Your task to perform on an android device: toggle show notifications on the lock screen Image 0: 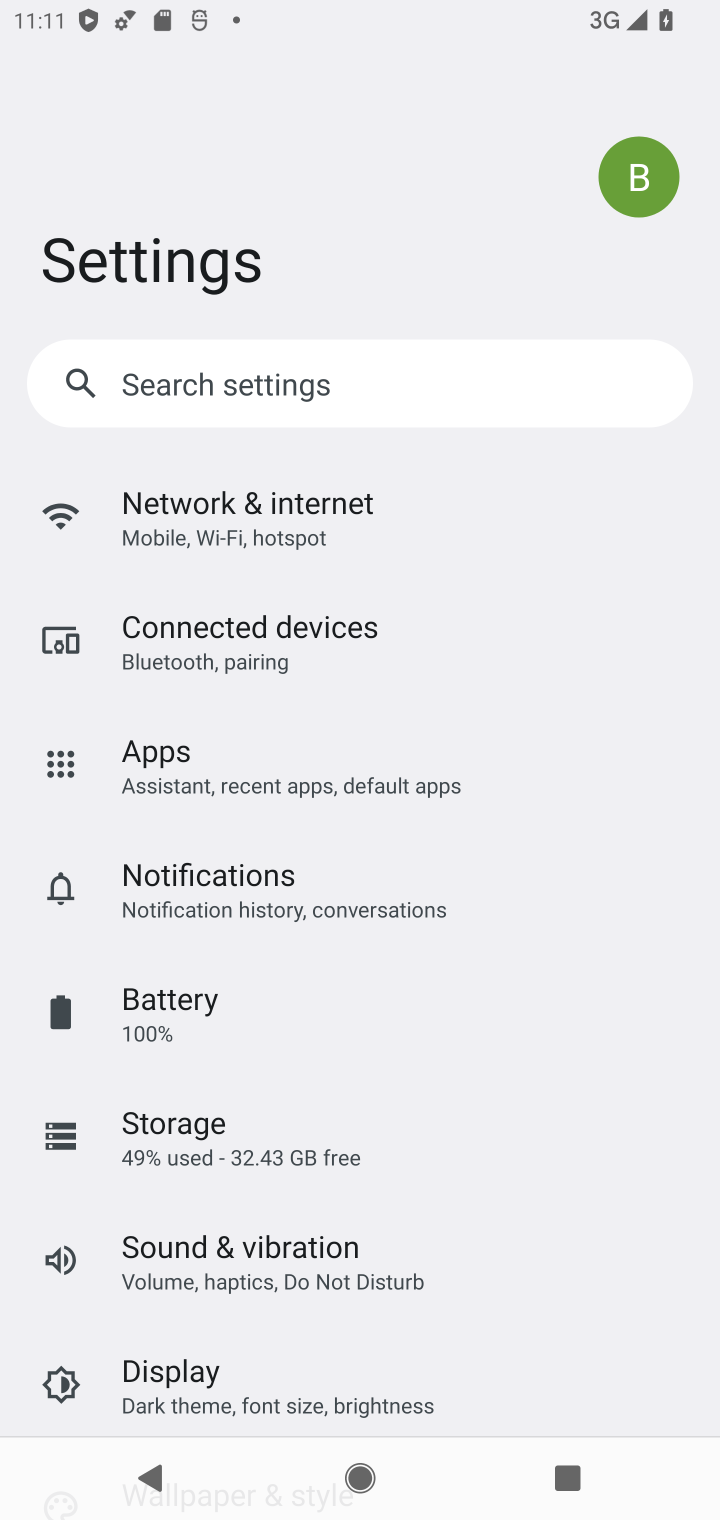
Step 0: press home button
Your task to perform on an android device: toggle show notifications on the lock screen Image 1: 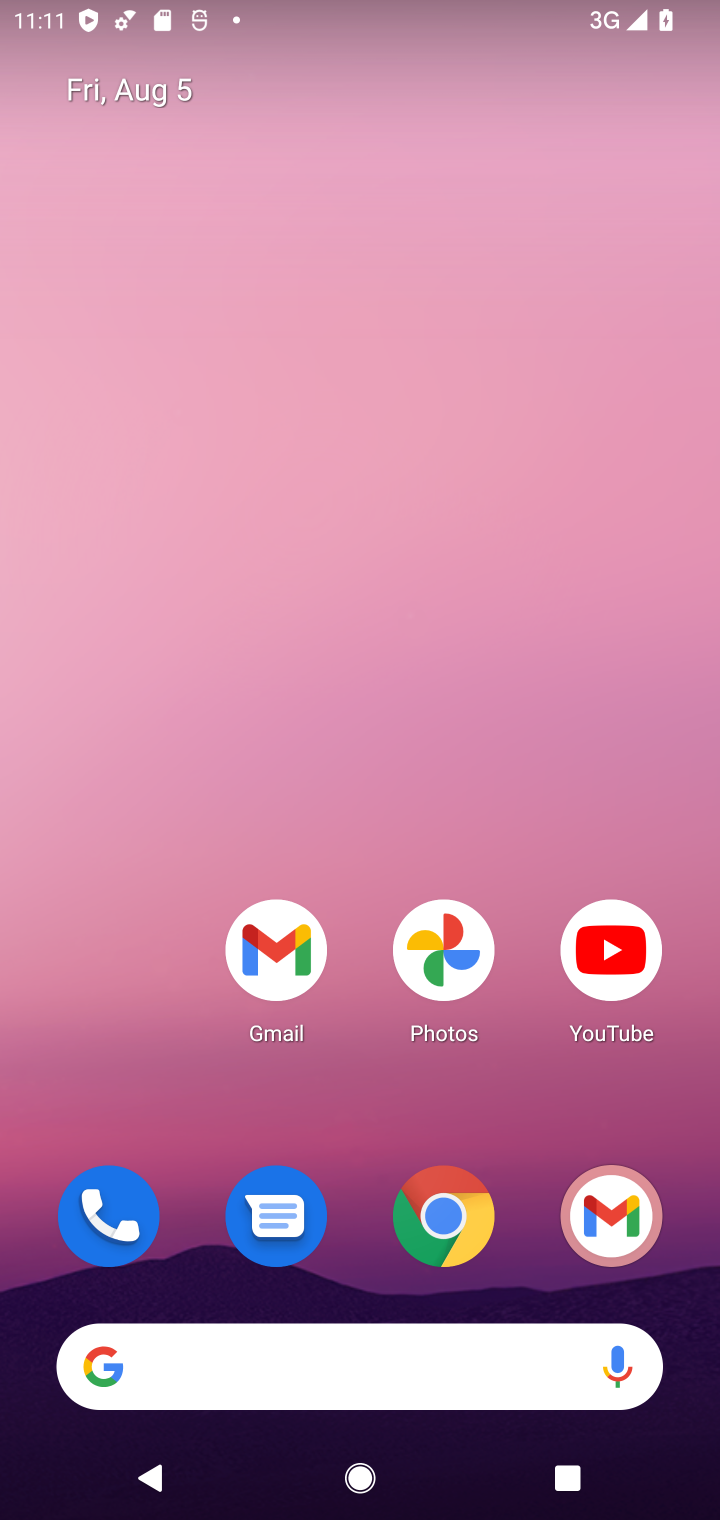
Step 1: drag from (458, 1345) to (602, 203)
Your task to perform on an android device: toggle show notifications on the lock screen Image 2: 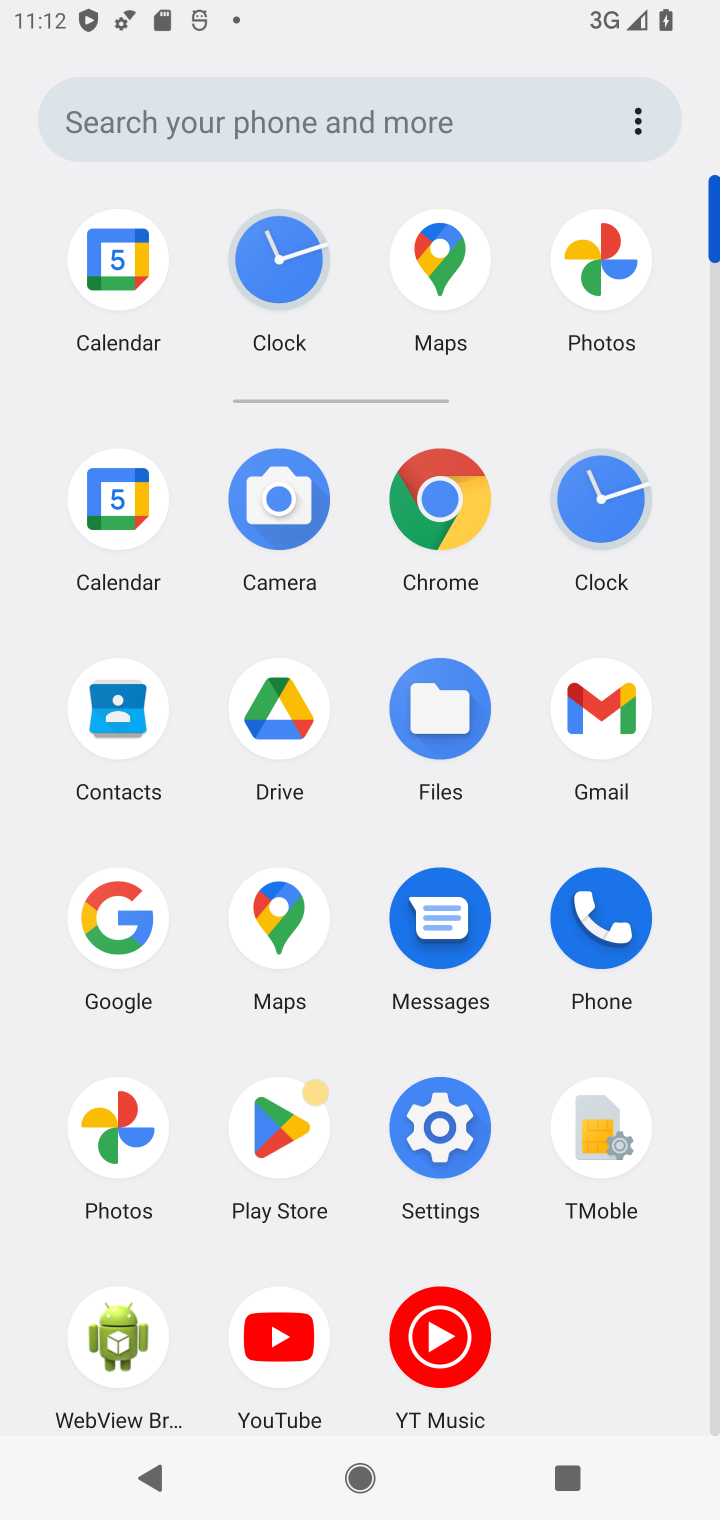
Step 2: click (464, 1125)
Your task to perform on an android device: toggle show notifications on the lock screen Image 3: 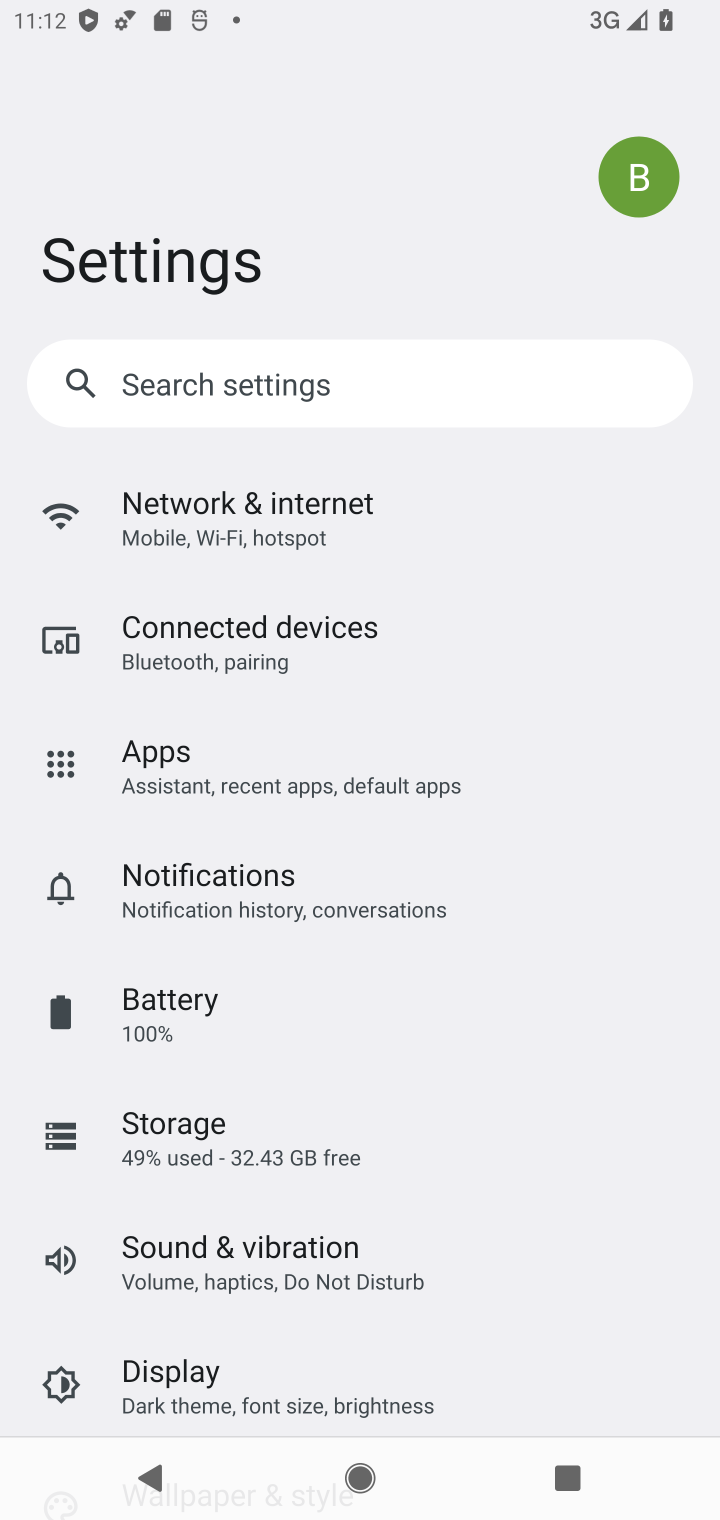
Step 3: click (246, 883)
Your task to perform on an android device: toggle show notifications on the lock screen Image 4: 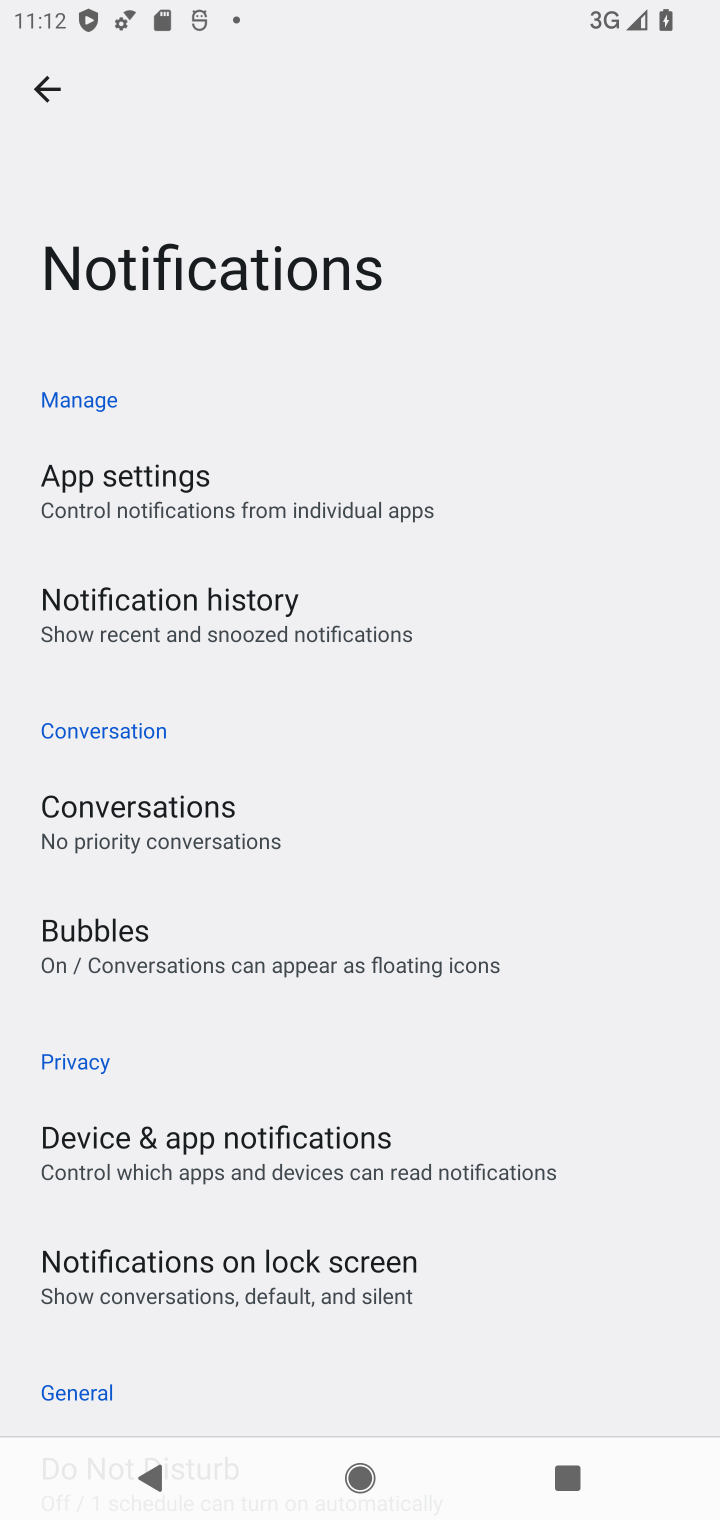
Step 4: click (361, 1270)
Your task to perform on an android device: toggle show notifications on the lock screen Image 5: 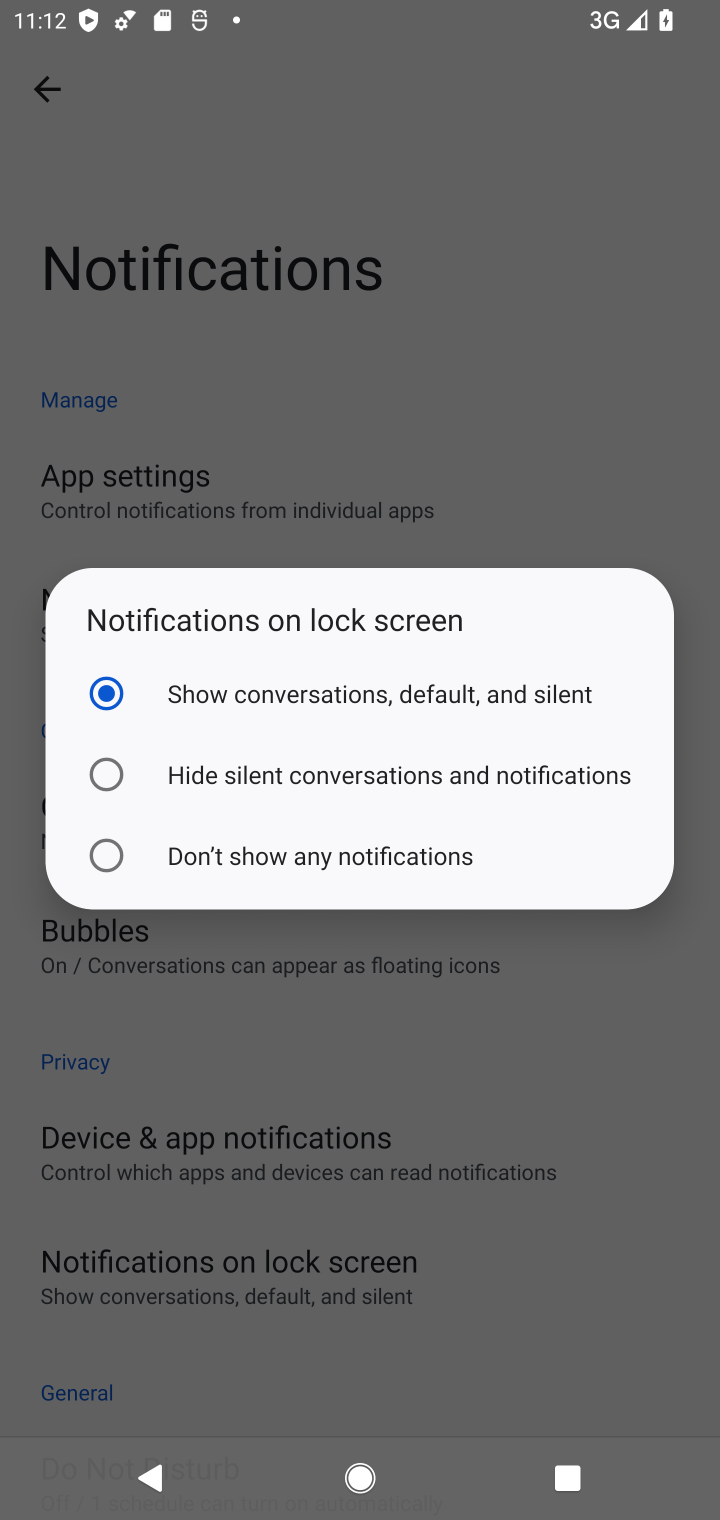
Step 5: click (110, 841)
Your task to perform on an android device: toggle show notifications on the lock screen Image 6: 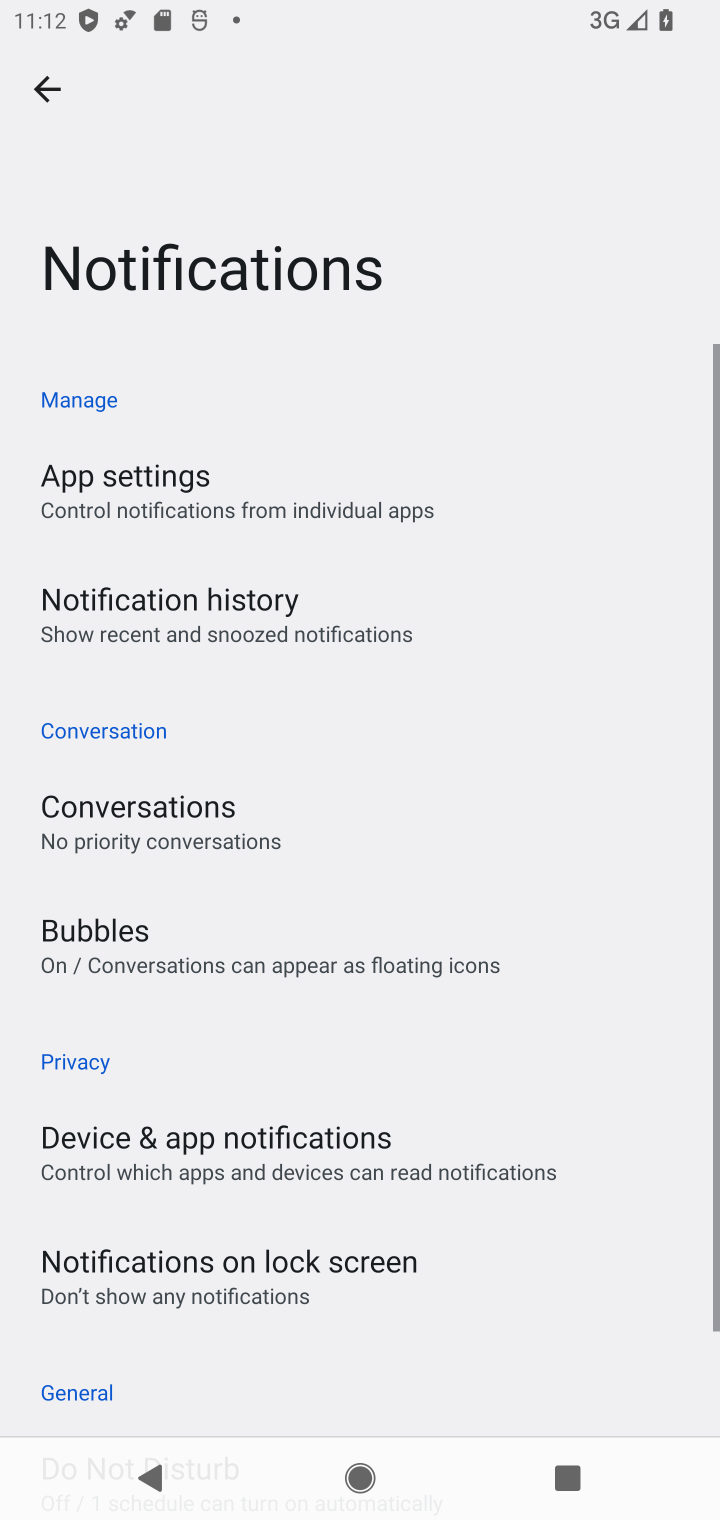
Step 6: task complete